Your task to perform on an android device: install app "Mercado Libre" Image 0: 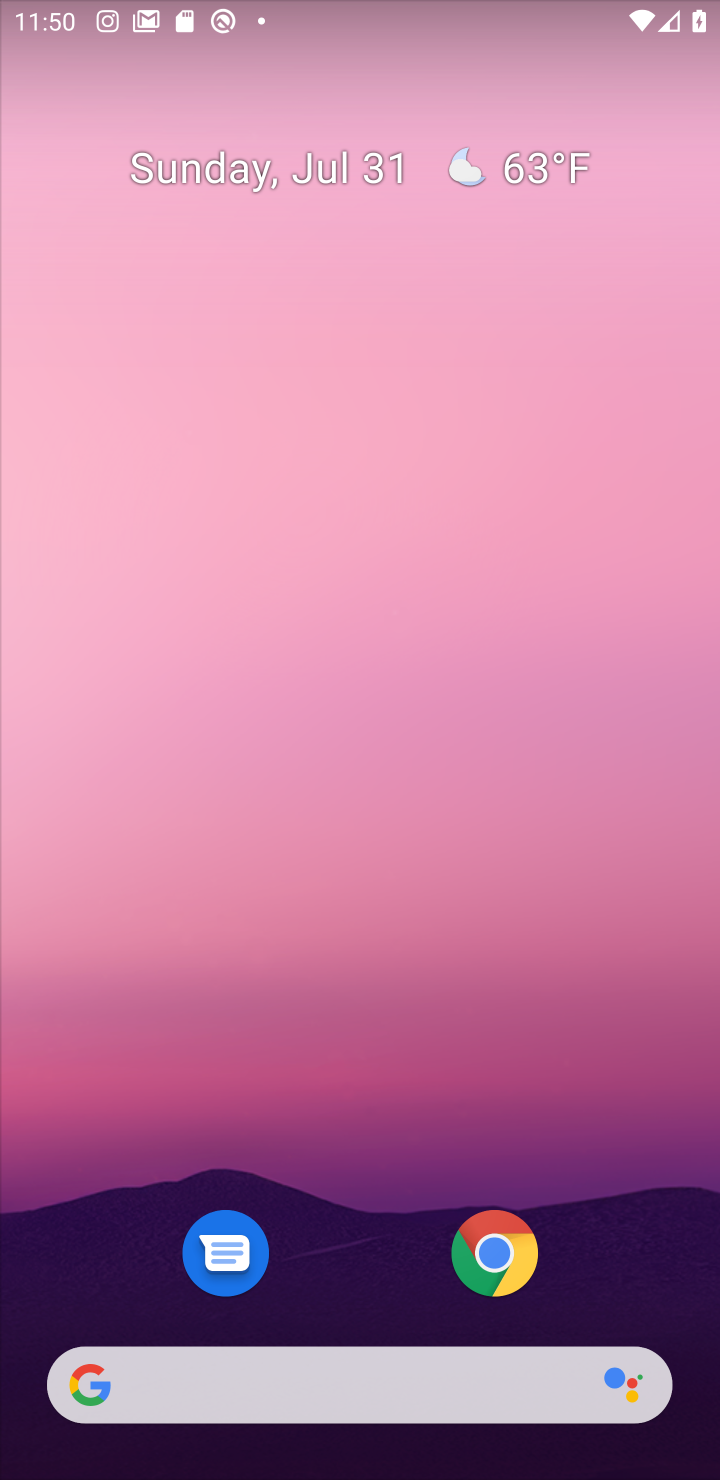
Step 0: drag from (380, 976) to (414, 186)
Your task to perform on an android device: install app "Mercado Libre" Image 1: 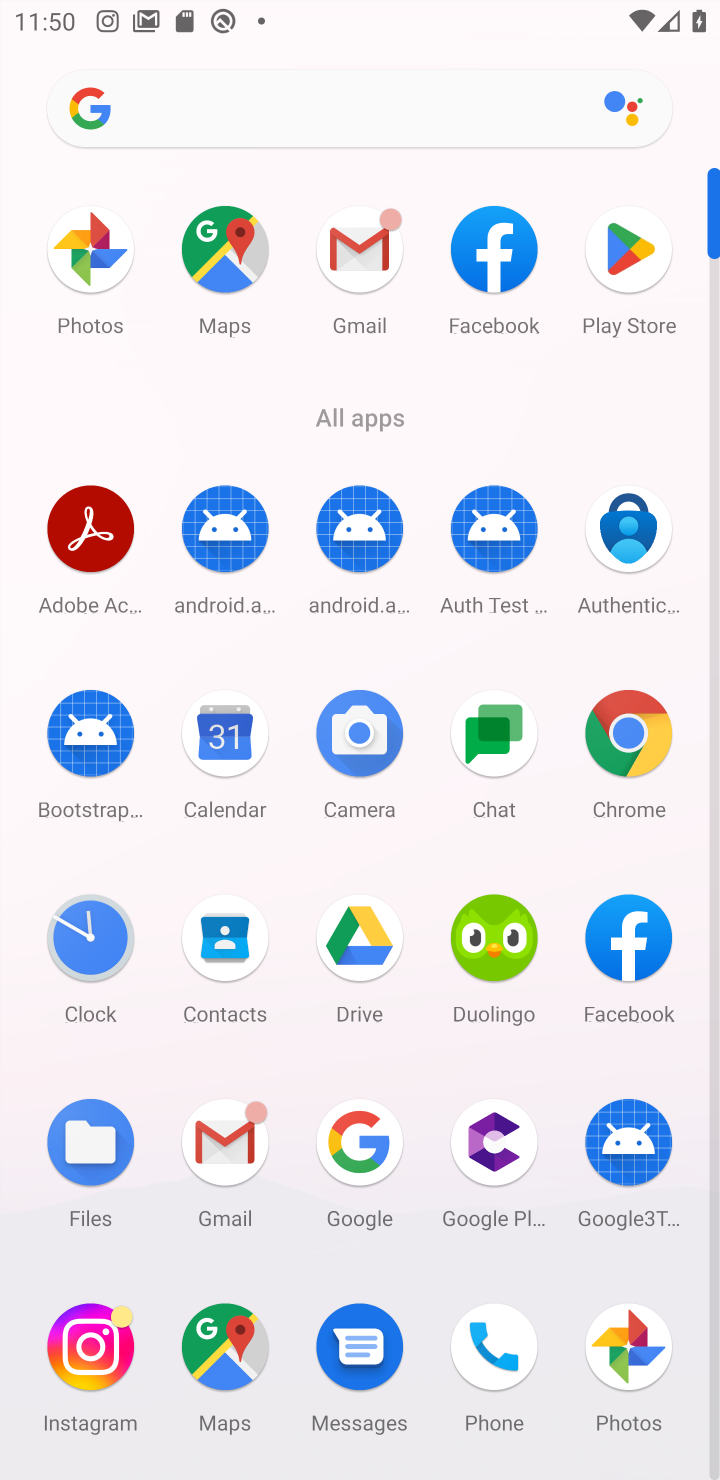
Step 1: click (631, 243)
Your task to perform on an android device: install app "Mercado Libre" Image 2: 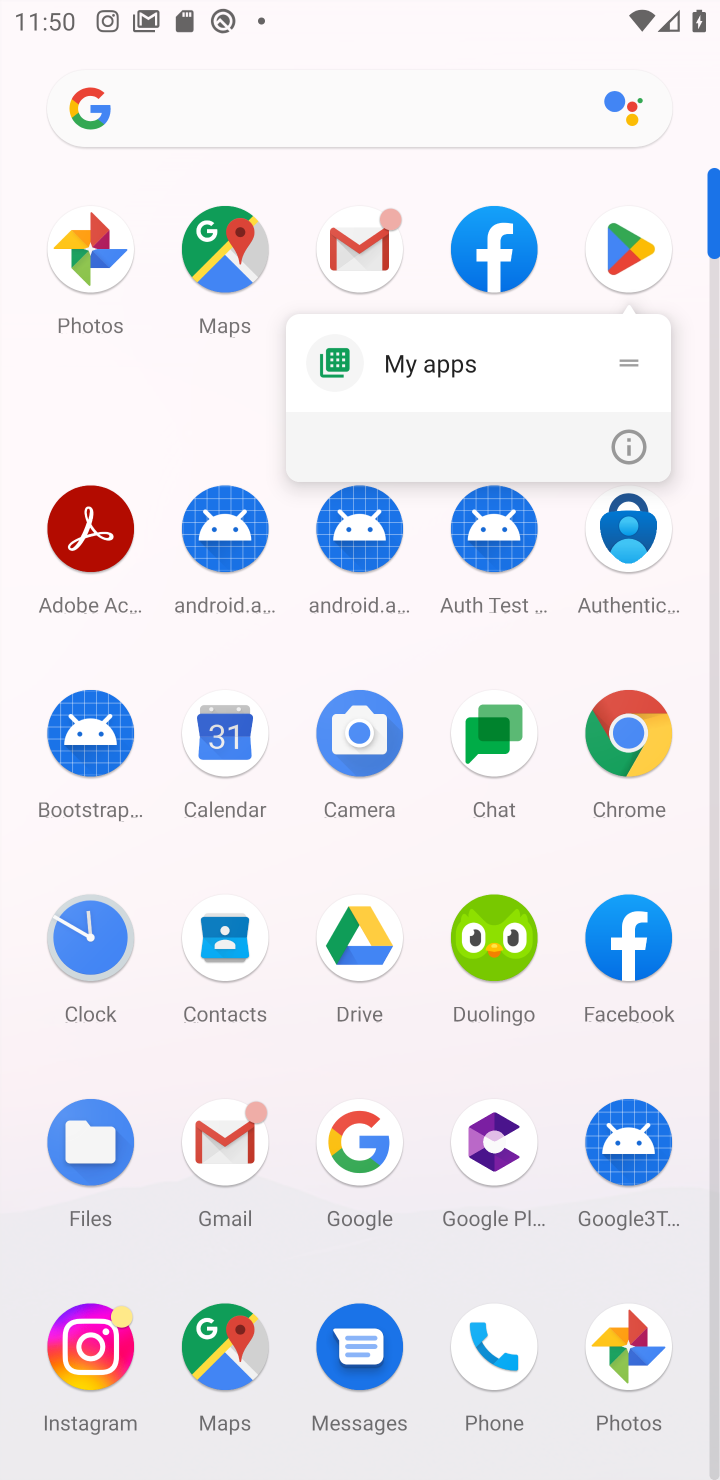
Step 2: click (635, 250)
Your task to perform on an android device: install app "Mercado Libre" Image 3: 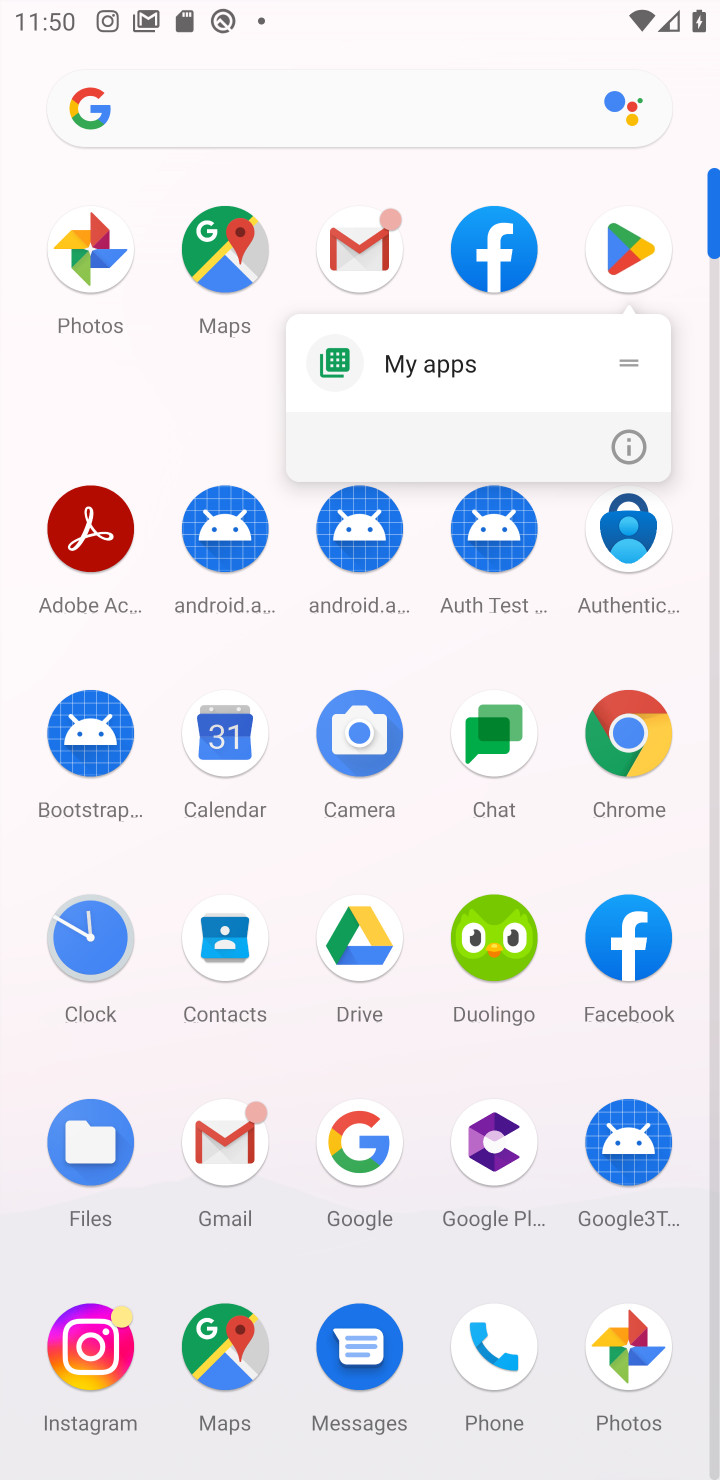
Step 3: click (635, 250)
Your task to perform on an android device: install app "Mercado Libre" Image 4: 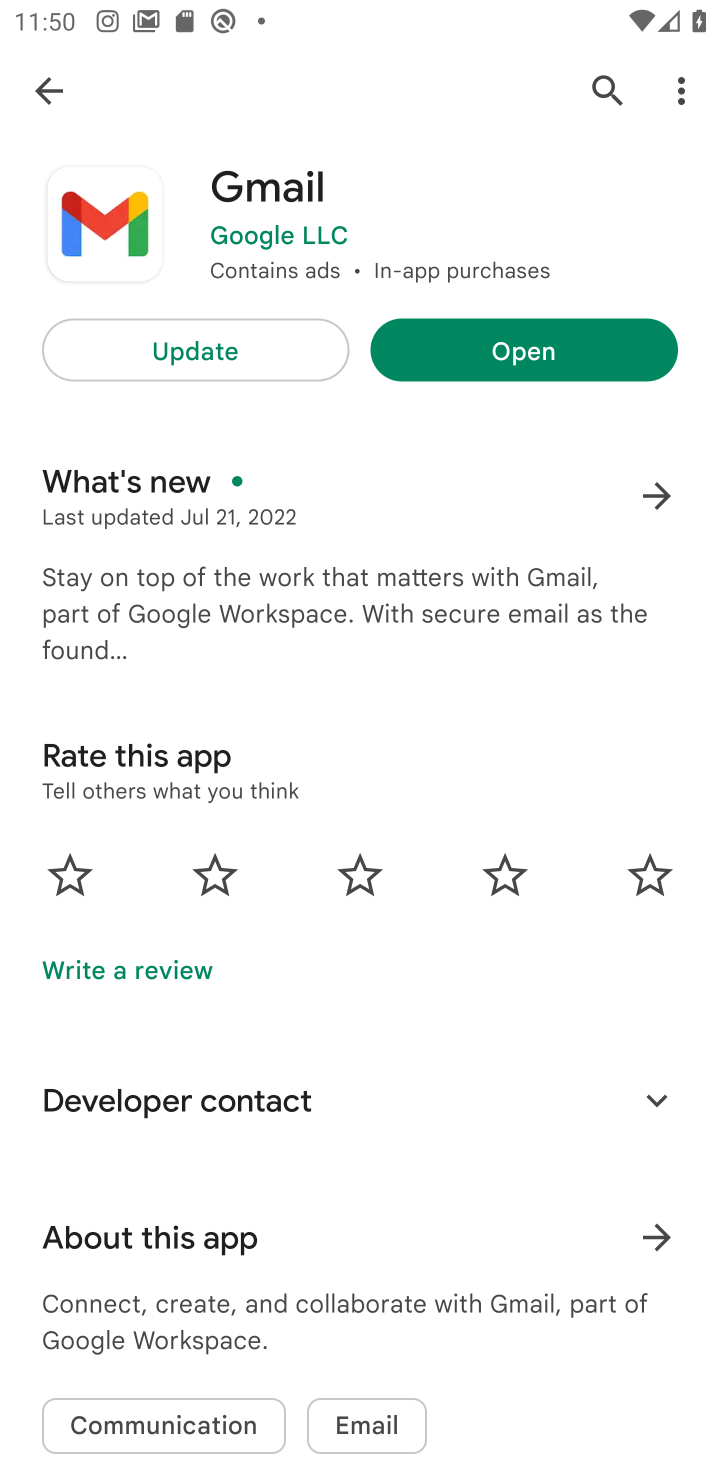
Step 4: click (602, 73)
Your task to perform on an android device: install app "Mercado Libre" Image 5: 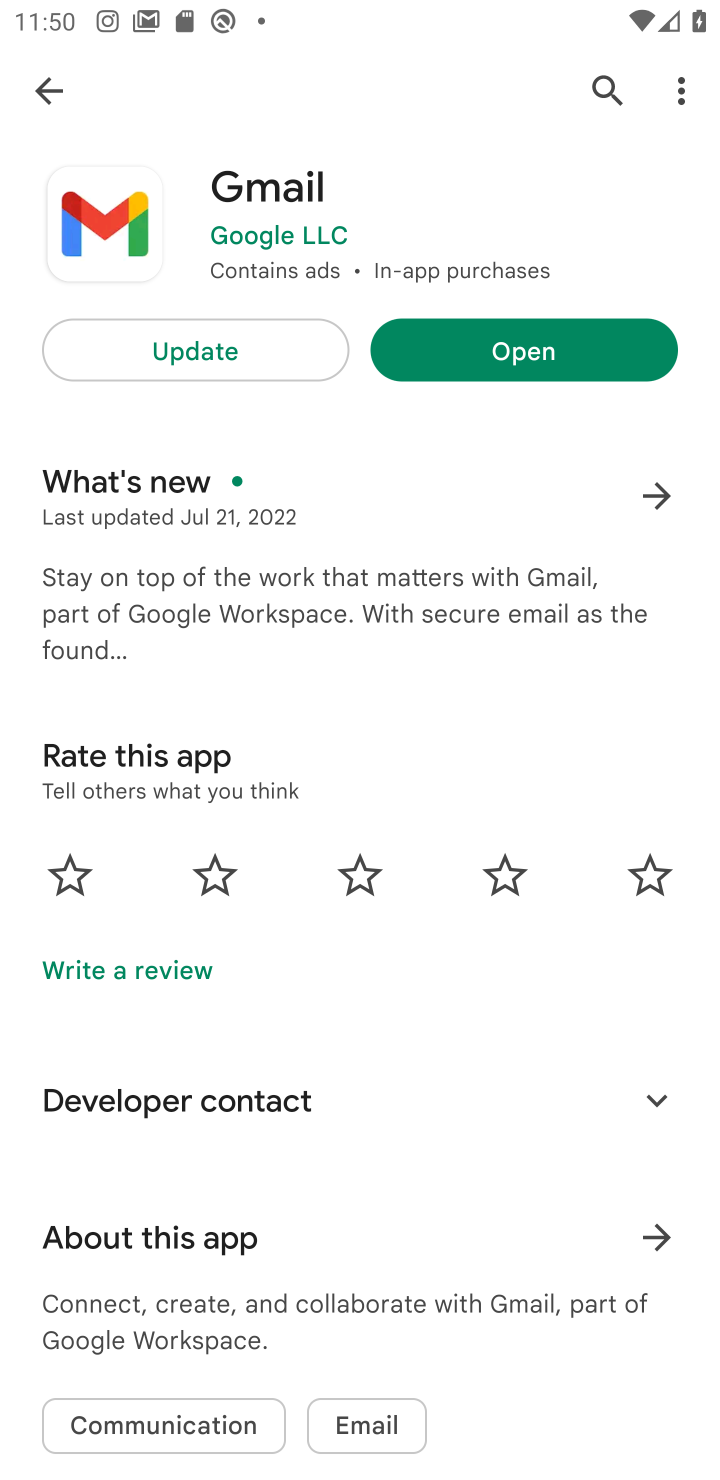
Step 5: click (619, 79)
Your task to perform on an android device: install app "Mercado Libre" Image 6: 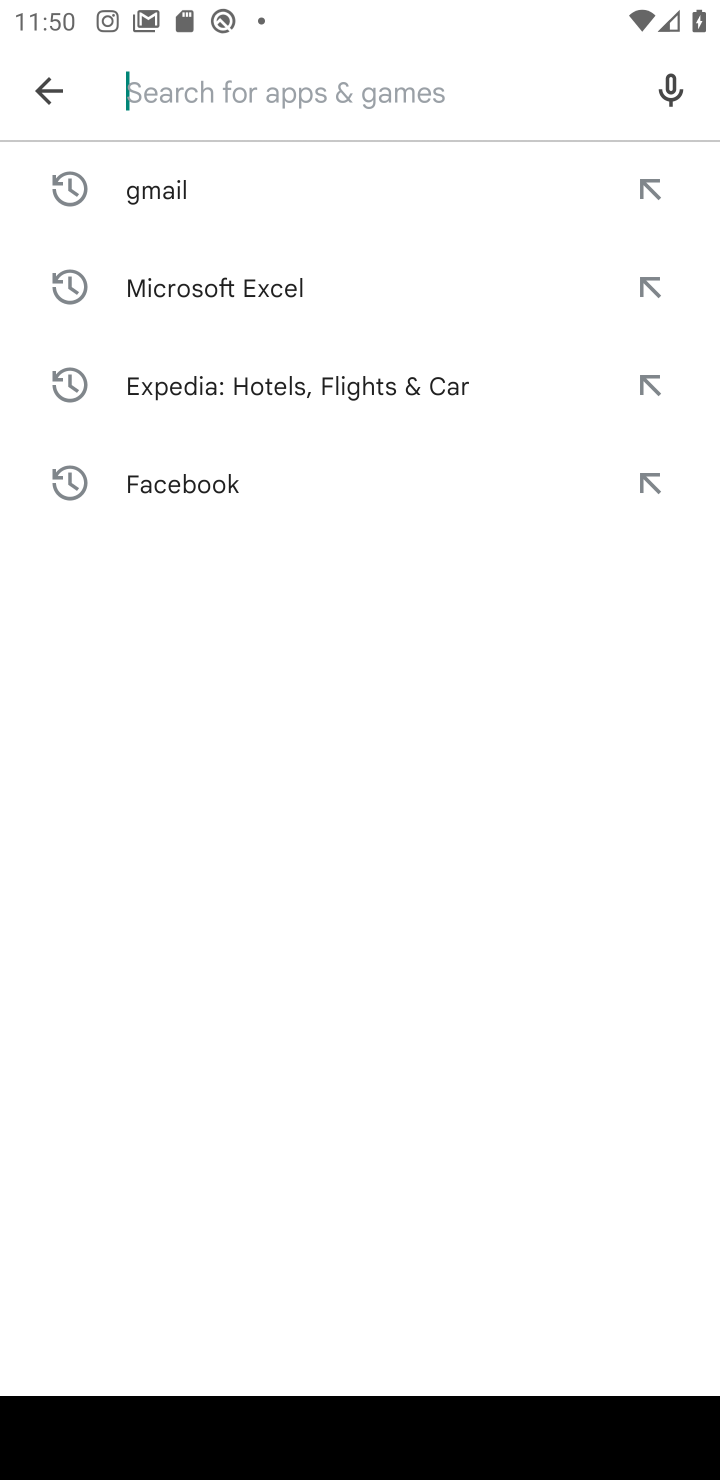
Step 6: type "Mercado Libre"
Your task to perform on an android device: install app "Mercado Libre" Image 7: 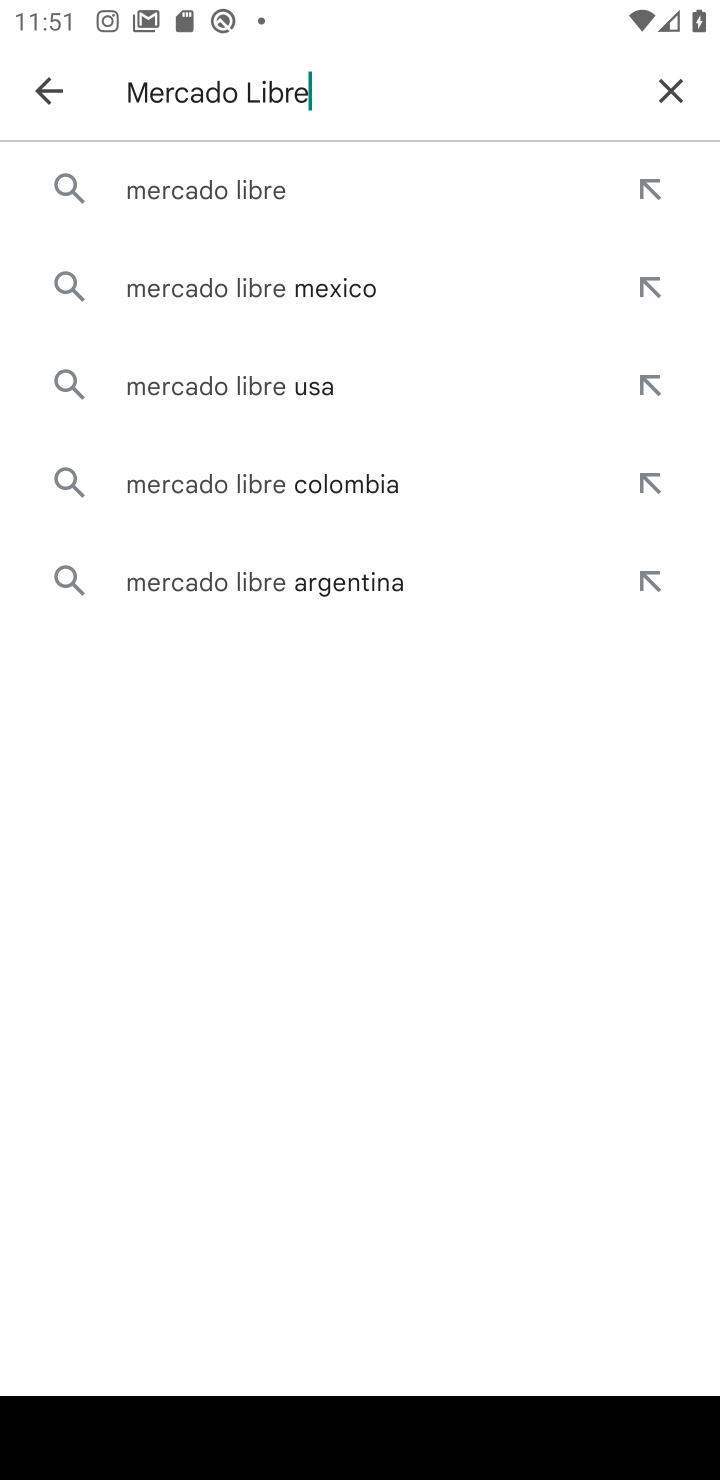
Step 7: press enter
Your task to perform on an android device: install app "Mercado Libre" Image 8: 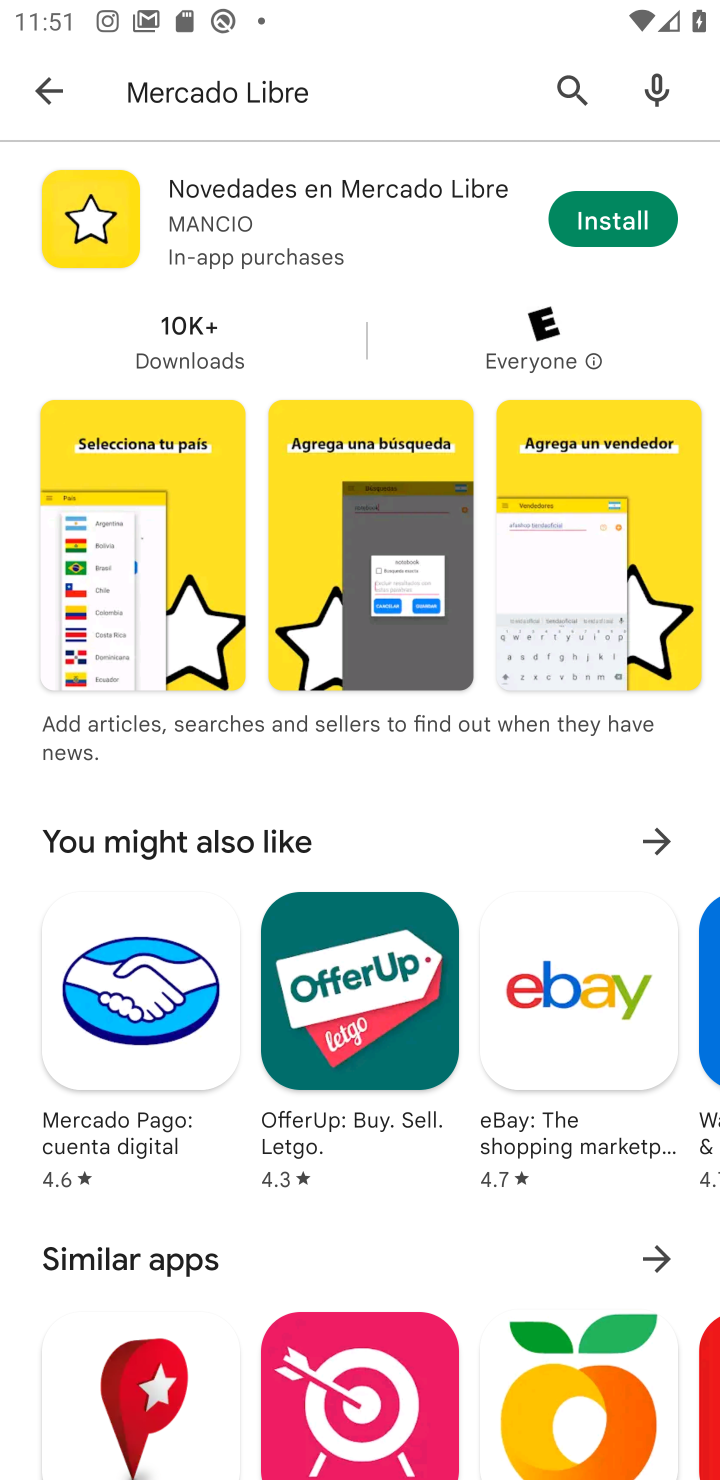
Step 8: click (634, 218)
Your task to perform on an android device: install app "Mercado Libre" Image 9: 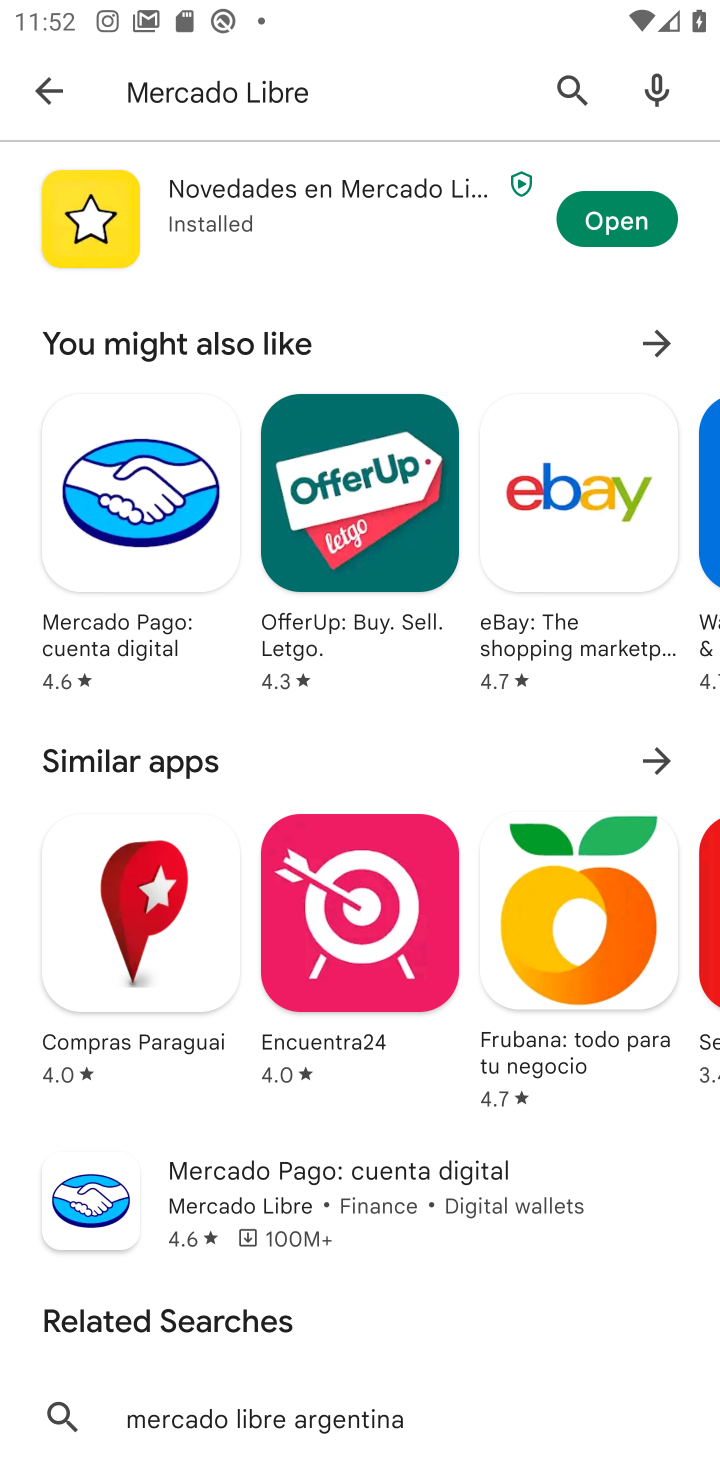
Step 9: task complete